Your task to perform on an android device: Check the news Image 0: 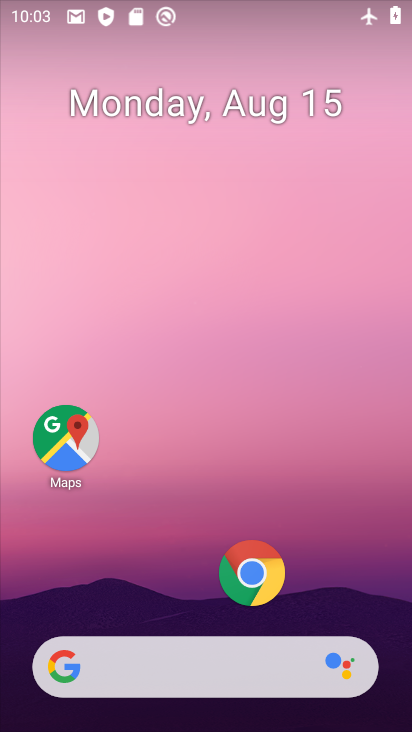
Step 0: click (182, 660)
Your task to perform on an android device: Check the news Image 1: 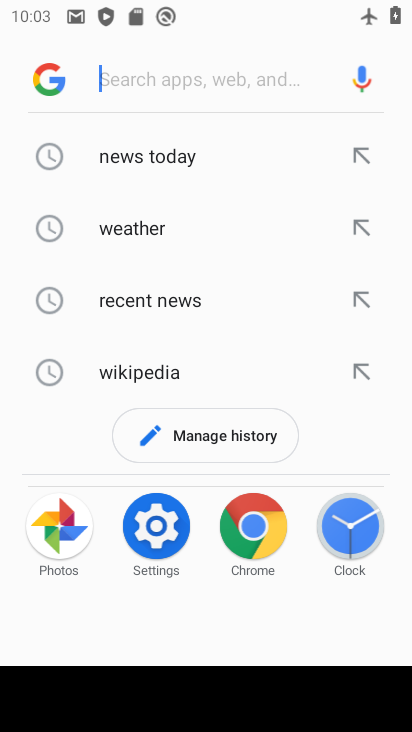
Step 1: click (129, 299)
Your task to perform on an android device: Check the news Image 2: 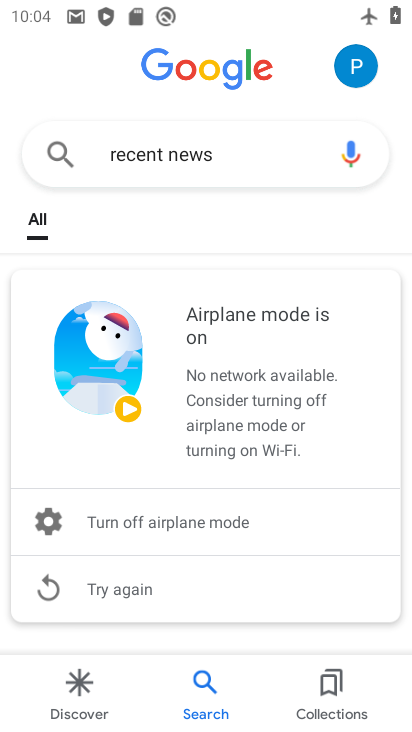
Step 2: task complete